Your task to perform on an android device: see tabs open on other devices in the chrome app Image 0: 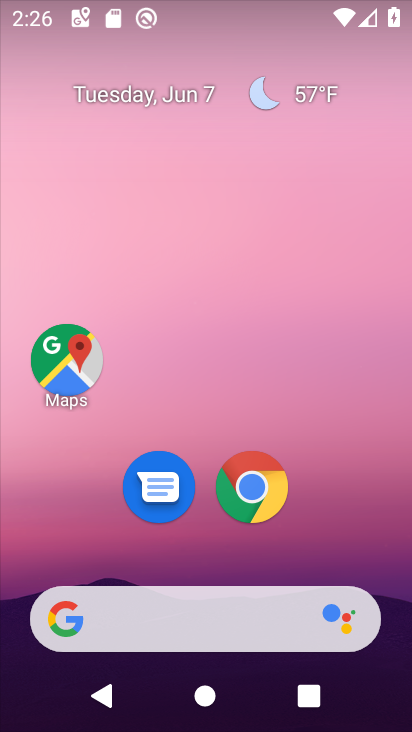
Step 0: click (246, 492)
Your task to perform on an android device: see tabs open on other devices in the chrome app Image 1: 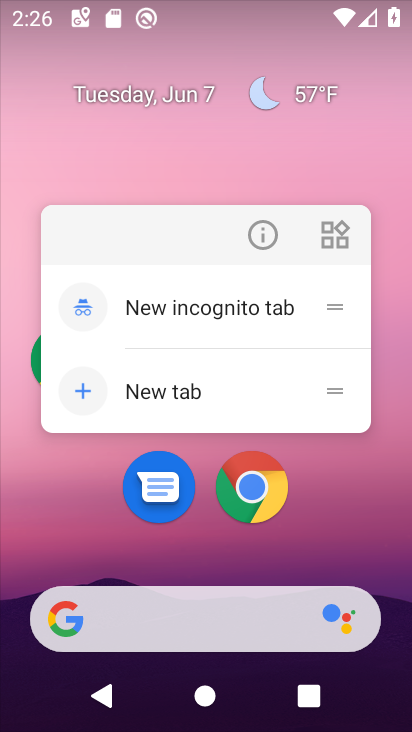
Step 1: click (238, 492)
Your task to perform on an android device: see tabs open on other devices in the chrome app Image 2: 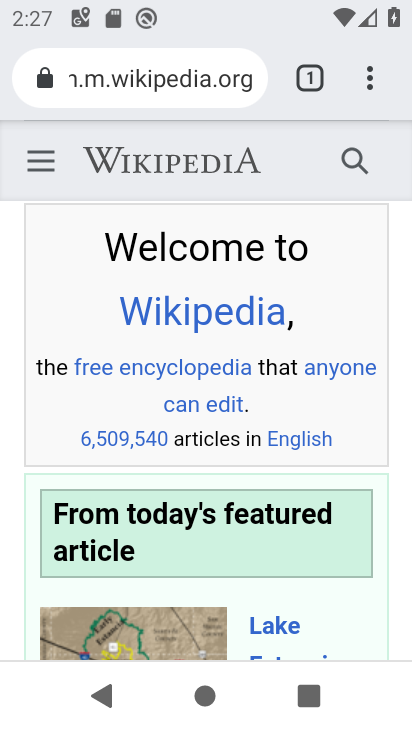
Step 2: click (310, 69)
Your task to perform on an android device: see tabs open on other devices in the chrome app Image 3: 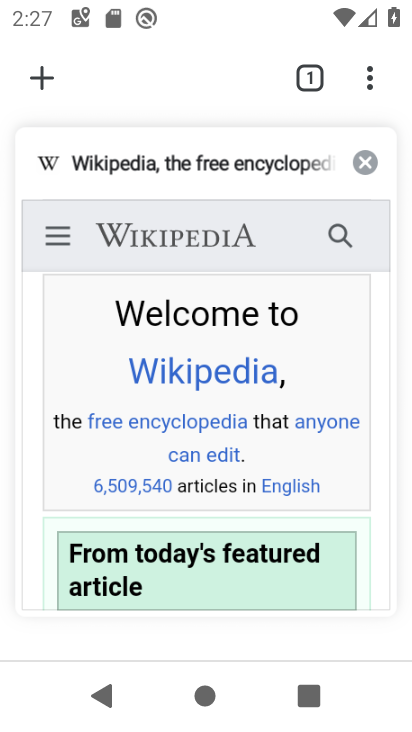
Step 3: task complete